Your task to perform on an android device: Open accessibility settings Image 0: 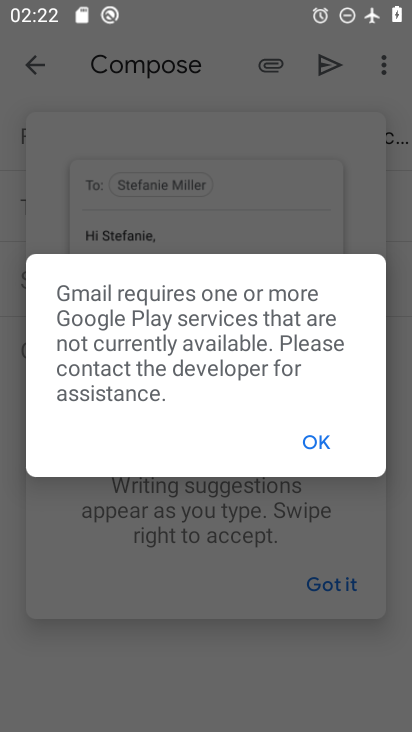
Step 0: press home button
Your task to perform on an android device: Open accessibility settings Image 1: 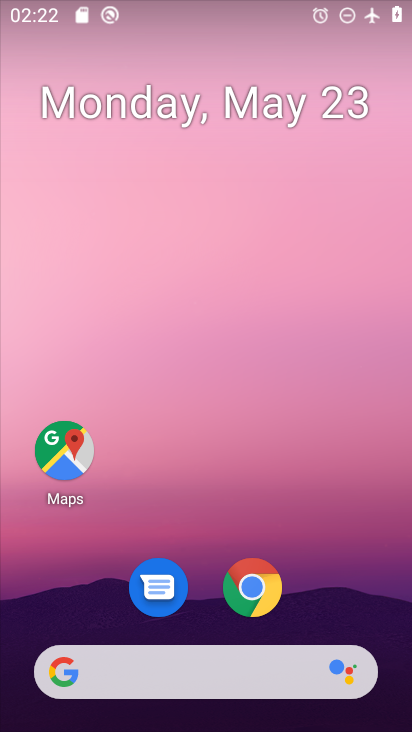
Step 1: drag from (349, 597) to (310, 38)
Your task to perform on an android device: Open accessibility settings Image 2: 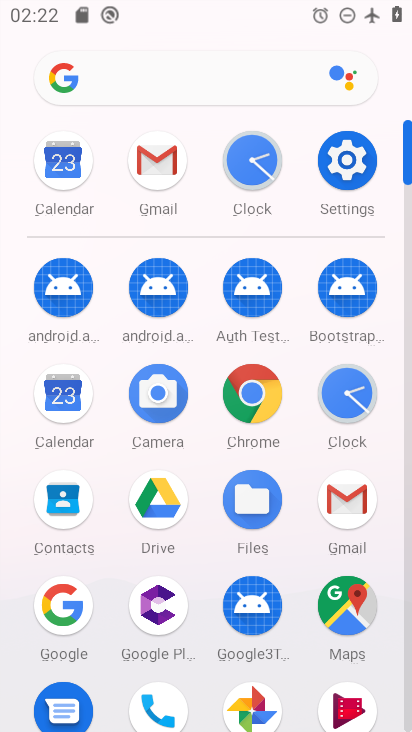
Step 2: click (344, 150)
Your task to perform on an android device: Open accessibility settings Image 3: 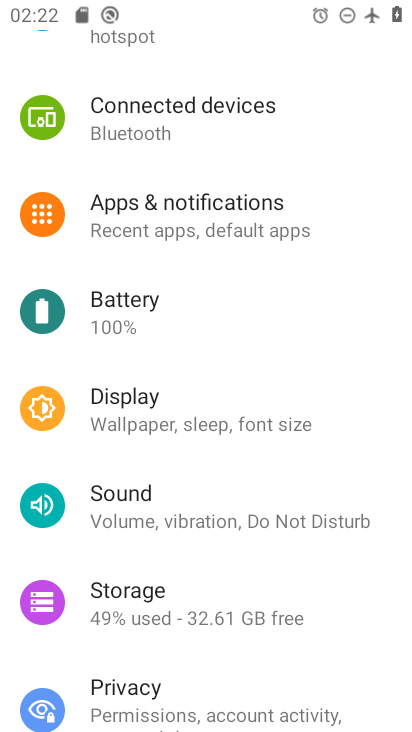
Step 3: drag from (252, 604) to (219, 209)
Your task to perform on an android device: Open accessibility settings Image 4: 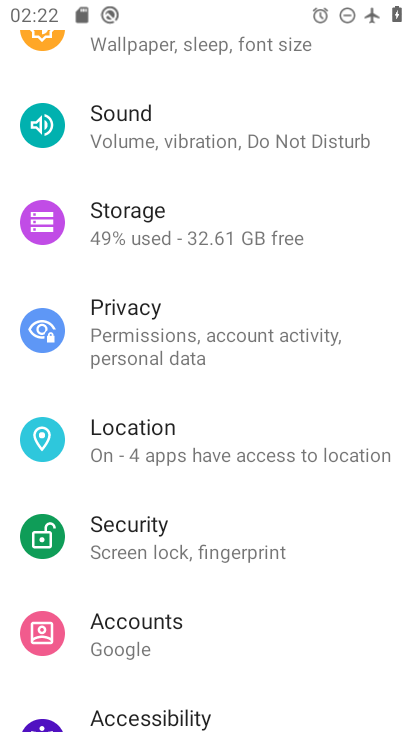
Step 4: click (243, 701)
Your task to perform on an android device: Open accessibility settings Image 5: 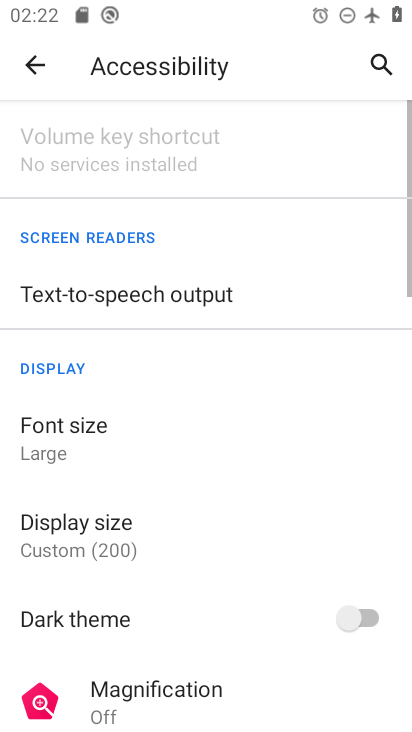
Step 5: task complete